Your task to perform on an android device: toggle wifi Image 0: 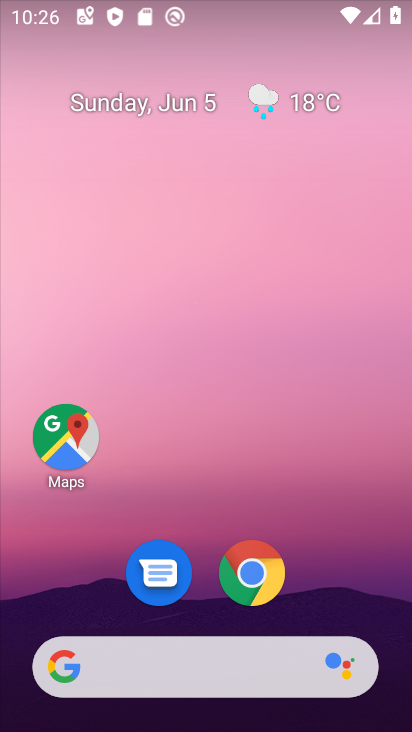
Step 0: drag from (119, 447) to (177, 240)
Your task to perform on an android device: toggle wifi Image 1: 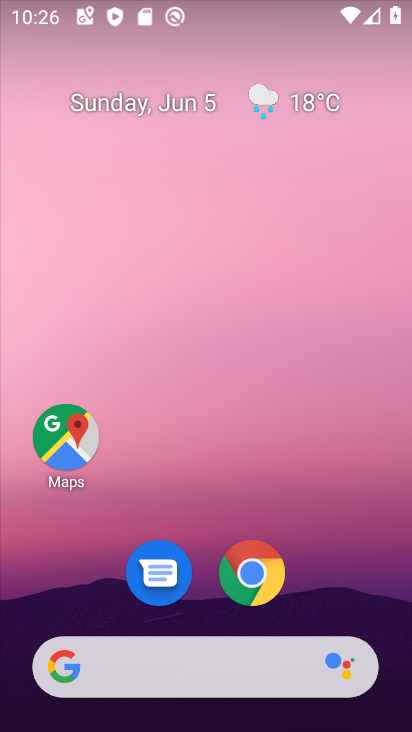
Step 1: drag from (81, 624) to (169, 130)
Your task to perform on an android device: toggle wifi Image 2: 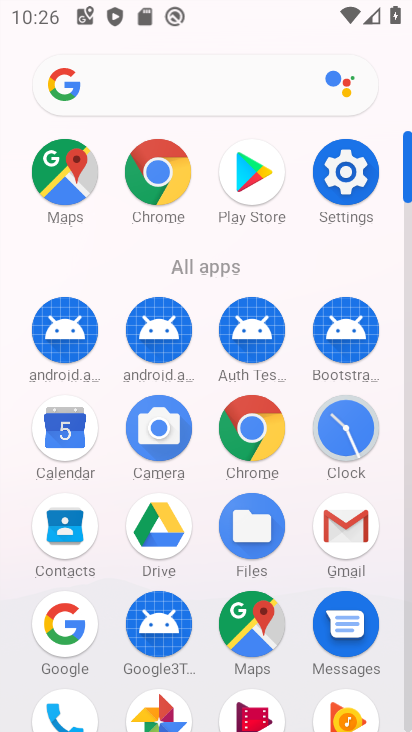
Step 2: drag from (113, 646) to (210, 329)
Your task to perform on an android device: toggle wifi Image 3: 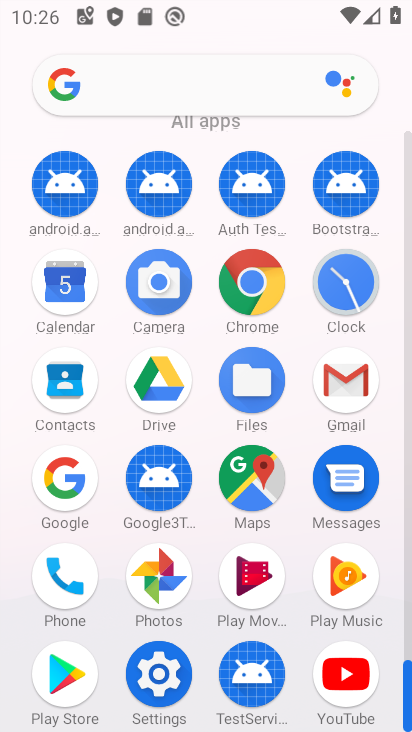
Step 3: click (162, 685)
Your task to perform on an android device: toggle wifi Image 4: 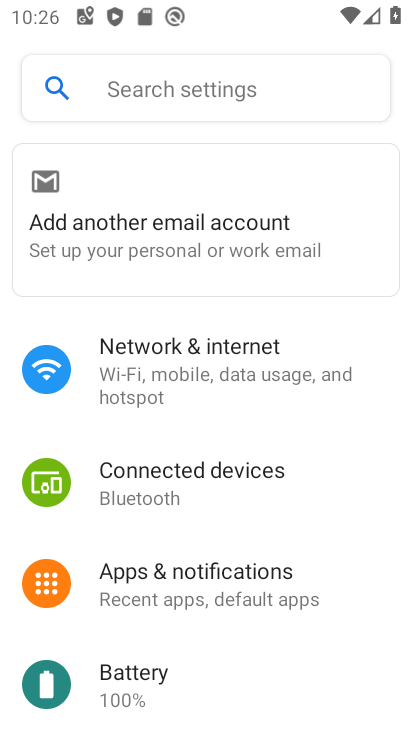
Step 4: click (246, 372)
Your task to perform on an android device: toggle wifi Image 5: 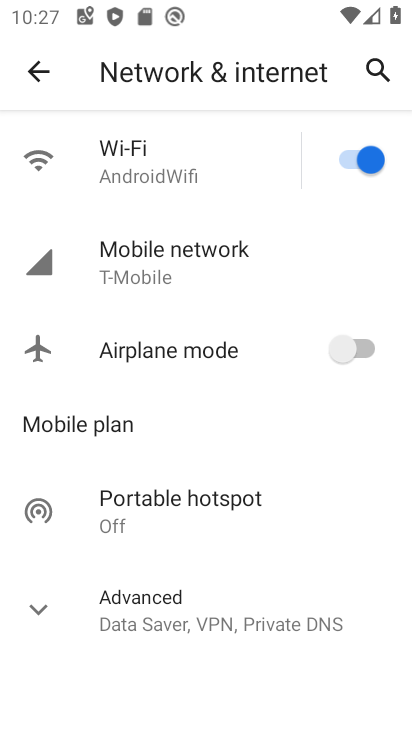
Step 5: click (344, 156)
Your task to perform on an android device: toggle wifi Image 6: 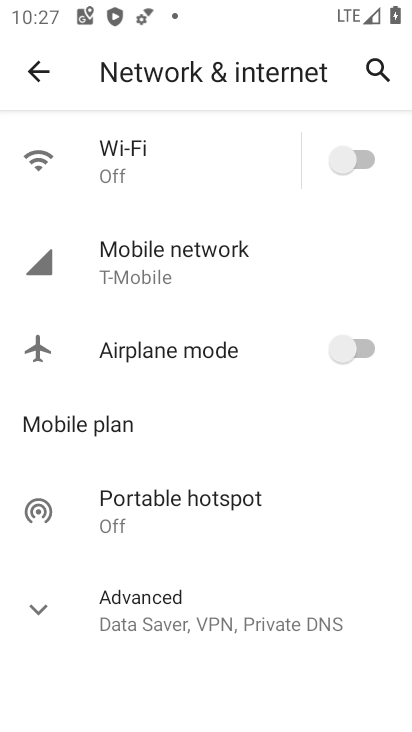
Step 6: task complete